Your task to perform on an android device: turn on the 24-hour format for clock Image 0: 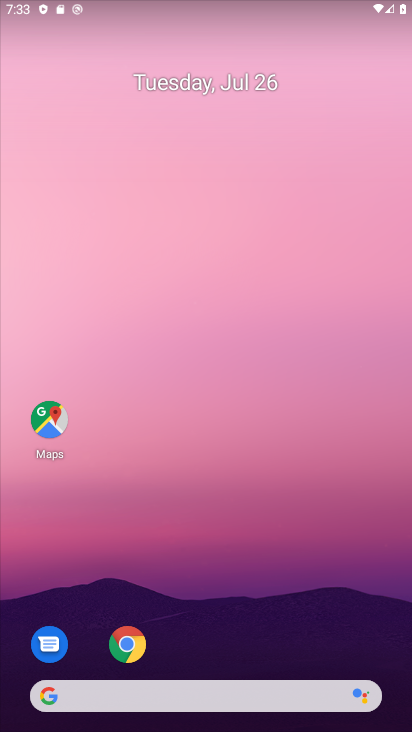
Step 0: drag from (391, 676) to (351, 80)
Your task to perform on an android device: turn on the 24-hour format for clock Image 1: 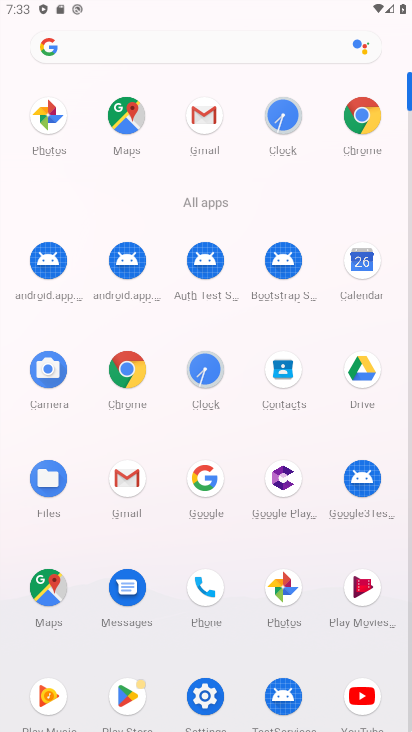
Step 1: click (213, 362)
Your task to perform on an android device: turn on the 24-hour format for clock Image 2: 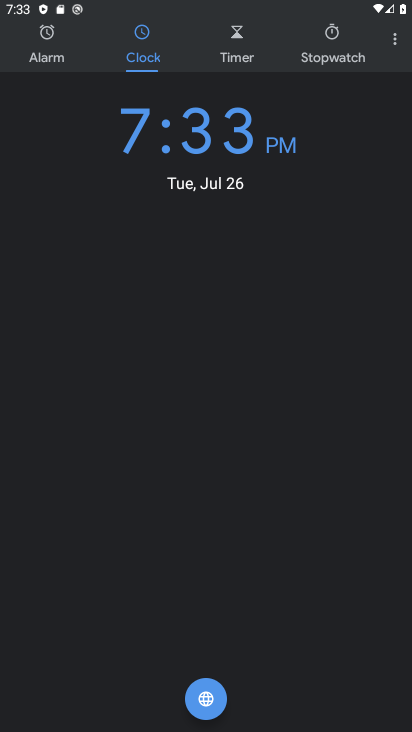
Step 2: click (394, 45)
Your task to perform on an android device: turn on the 24-hour format for clock Image 3: 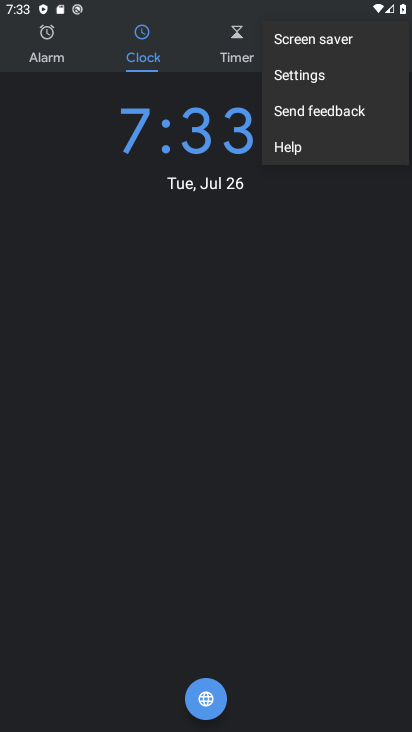
Step 3: click (292, 67)
Your task to perform on an android device: turn on the 24-hour format for clock Image 4: 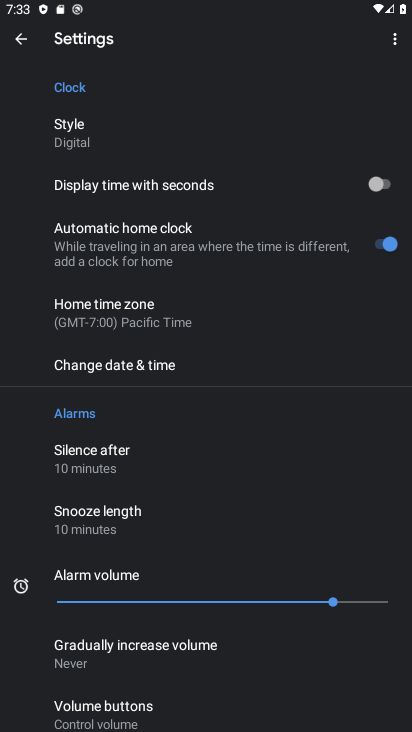
Step 4: click (113, 359)
Your task to perform on an android device: turn on the 24-hour format for clock Image 5: 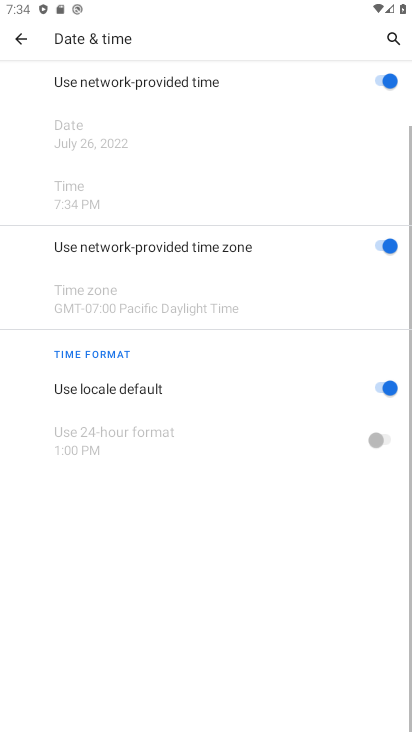
Step 5: click (385, 389)
Your task to perform on an android device: turn on the 24-hour format for clock Image 6: 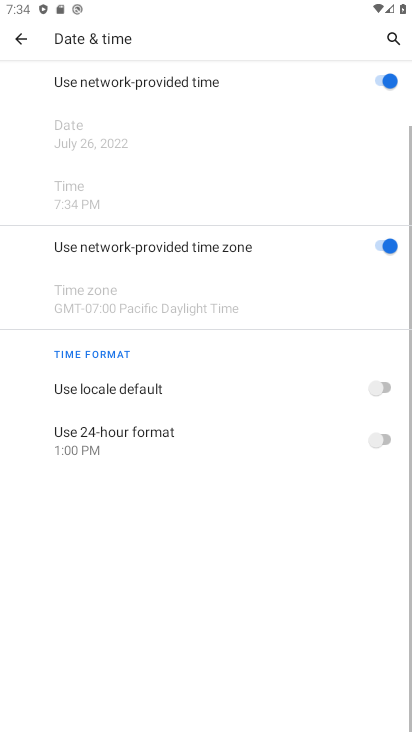
Step 6: click (379, 438)
Your task to perform on an android device: turn on the 24-hour format for clock Image 7: 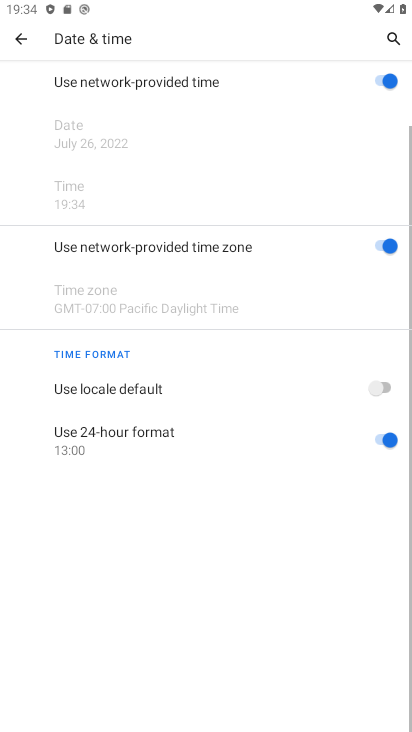
Step 7: task complete